Your task to perform on an android device: manage bookmarks in the chrome app Image 0: 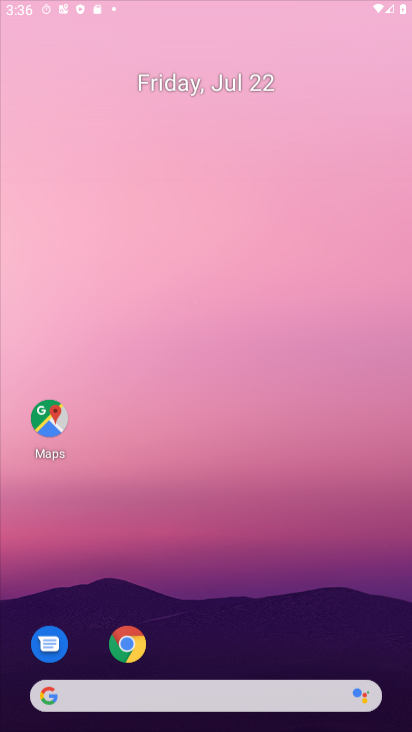
Step 0: press home button
Your task to perform on an android device: manage bookmarks in the chrome app Image 1: 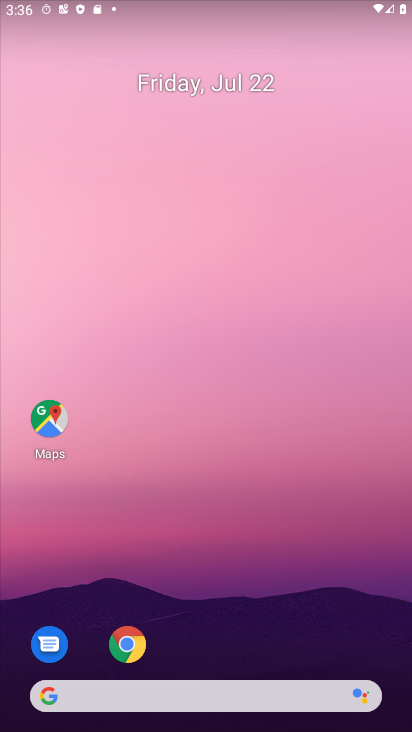
Step 1: drag from (241, 653) to (306, 47)
Your task to perform on an android device: manage bookmarks in the chrome app Image 2: 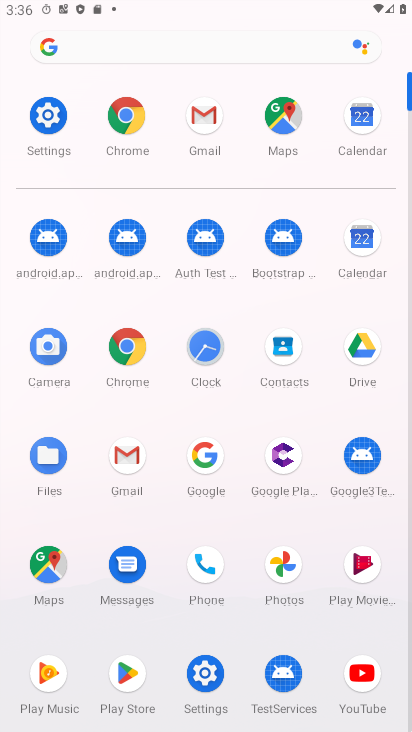
Step 2: click (125, 105)
Your task to perform on an android device: manage bookmarks in the chrome app Image 3: 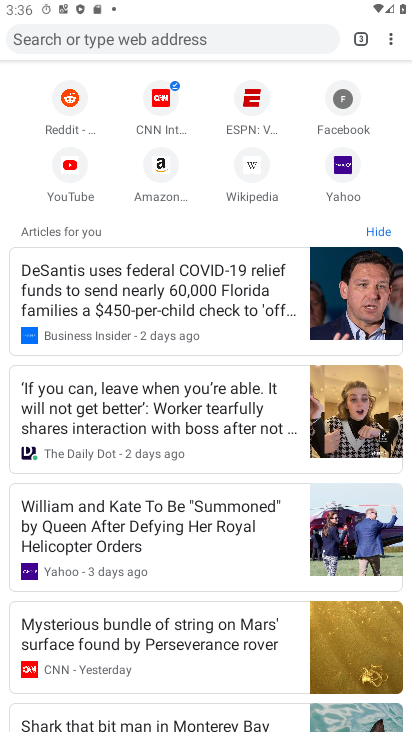
Step 3: drag from (388, 37) to (274, 207)
Your task to perform on an android device: manage bookmarks in the chrome app Image 4: 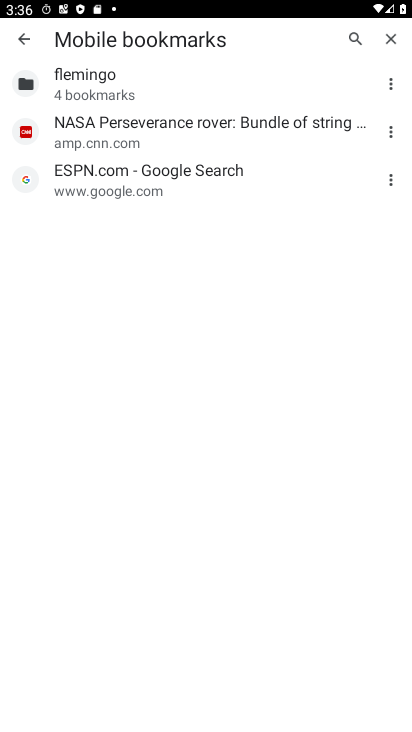
Step 4: click (387, 136)
Your task to perform on an android device: manage bookmarks in the chrome app Image 5: 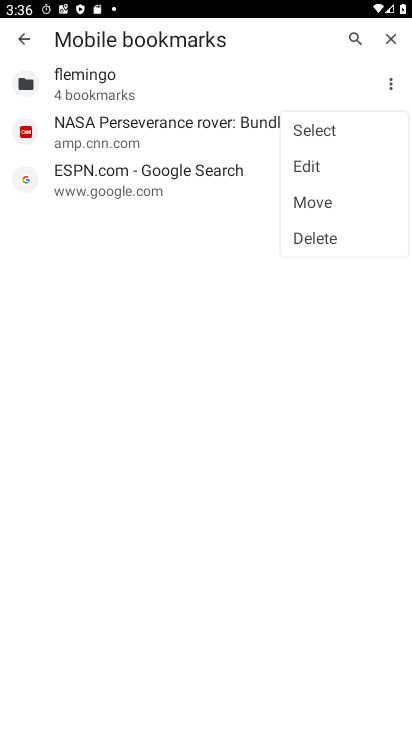
Step 5: click (309, 171)
Your task to perform on an android device: manage bookmarks in the chrome app Image 6: 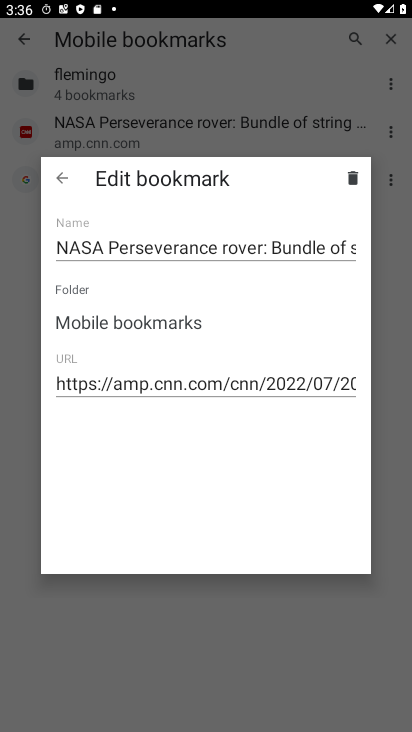
Step 6: task complete